Your task to perform on an android device: snooze an email in the gmail app Image 0: 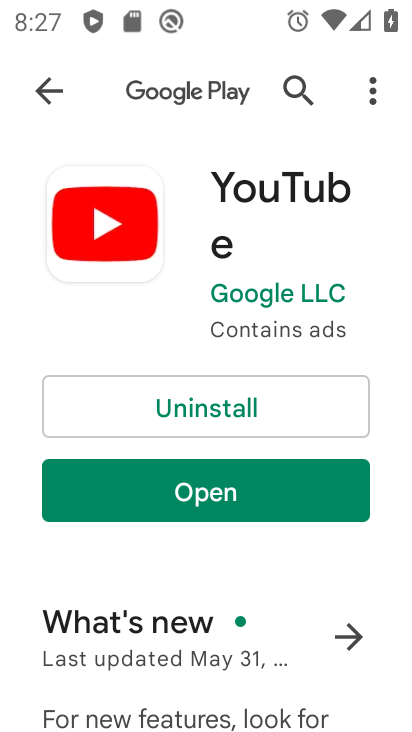
Step 0: press home button
Your task to perform on an android device: snooze an email in the gmail app Image 1: 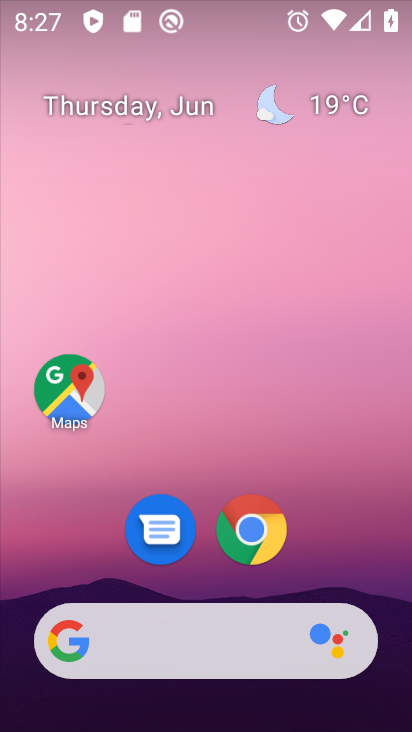
Step 1: drag from (392, 706) to (362, 190)
Your task to perform on an android device: snooze an email in the gmail app Image 2: 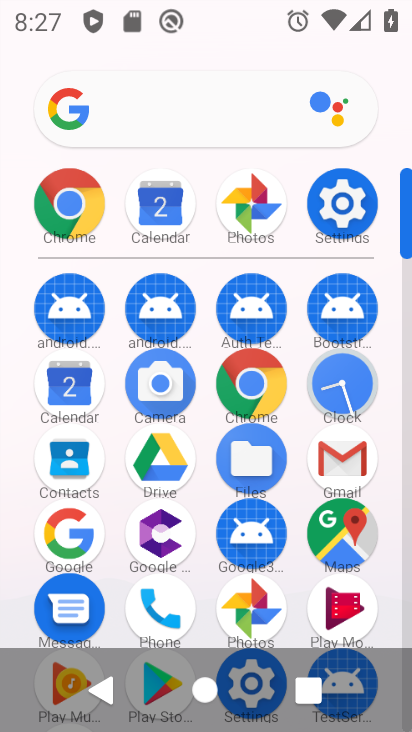
Step 2: click (334, 455)
Your task to perform on an android device: snooze an email in the gmail app Image 3: 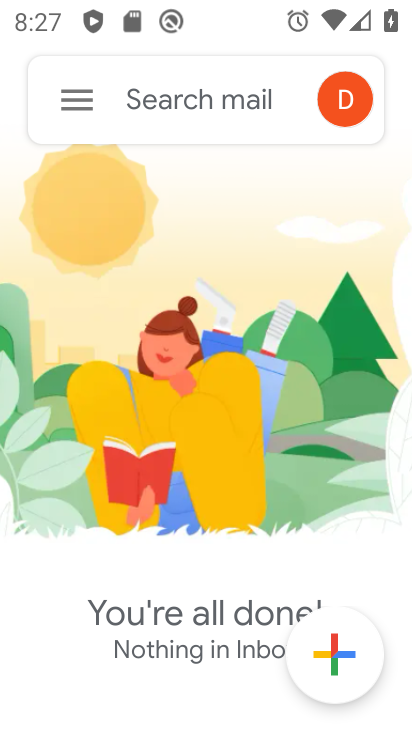
Step 3: click (82, 98)
Your task to perform on an android device: snooze an email in the gmail app Image 4: 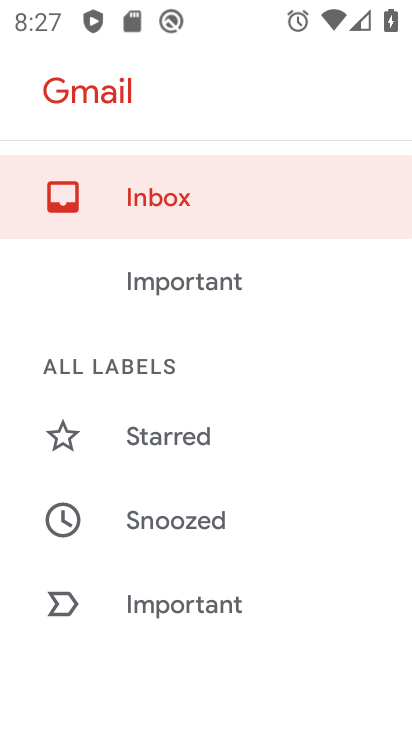
Step 4: click (180, 197)
Your task to perform on an android device: snooze an email in the gmail app Image 5: 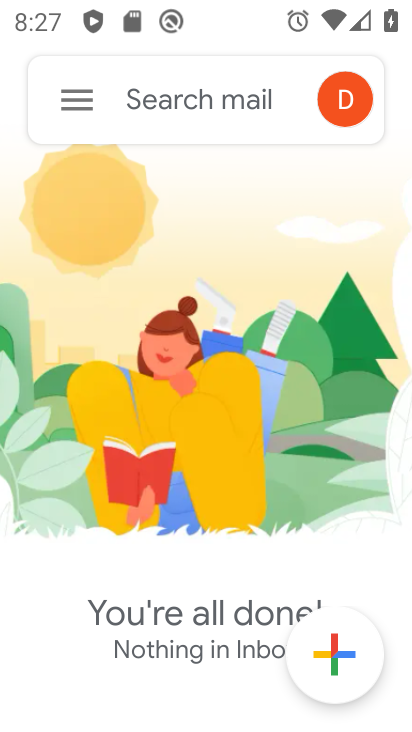
Step 5: task complete